Your task to perform on an android device: allow notifications from all sites in the chrome app Image 0: 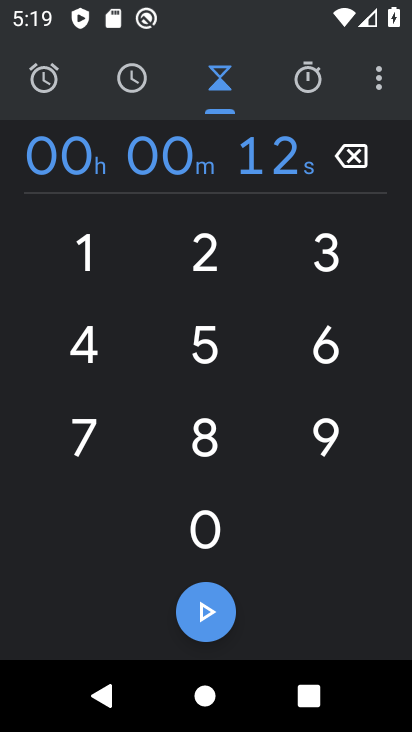
Step 0: press home button
Your task to perform on an android device: allow notifications from all sites in the chrome app Image 1: 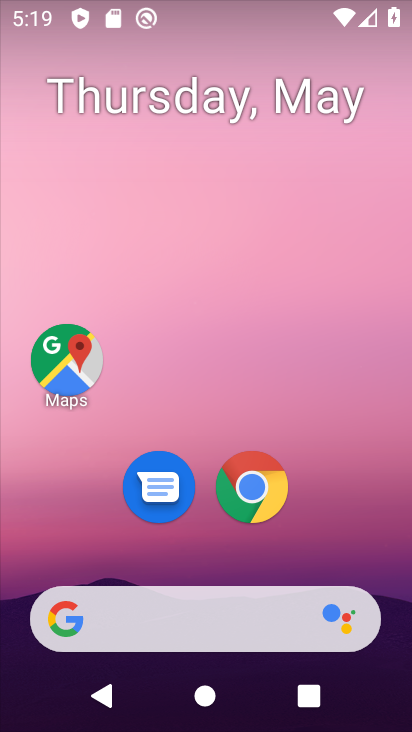
Step 1: click (269, 481)
Your task to perform on an android device: allow notifications from all sites in the chrome app Image 2: 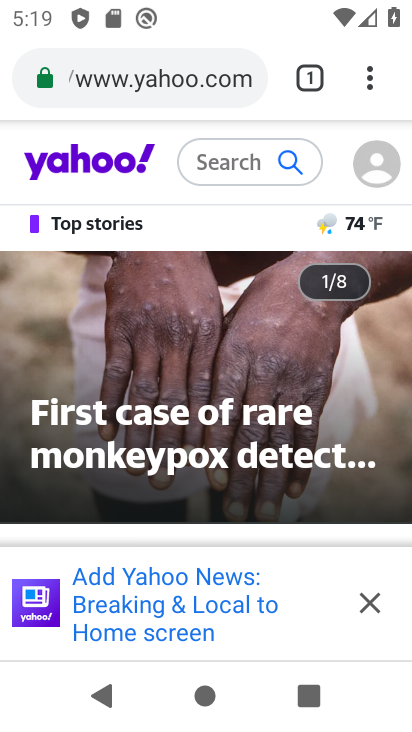
Step 2: click (370, 80)
Your task to perform on an android device: allow notifications from all sites in the chrome app Image 3: 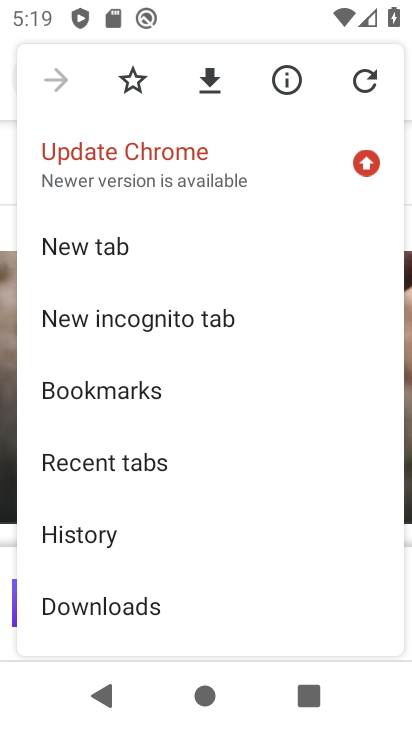
Step 3: drag from (215, 491) to (234, 165)
Your task to perform on an android device: allow notifications from all sites in the chrome app Image 4: 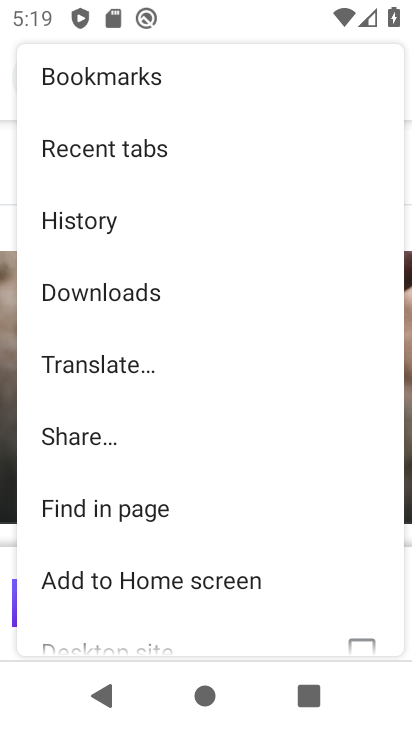
Step 4: drag from (228, 386) to (250, 131)
Your task to perform on an android device: allow notifications from all sites in the chrome app Image 5: 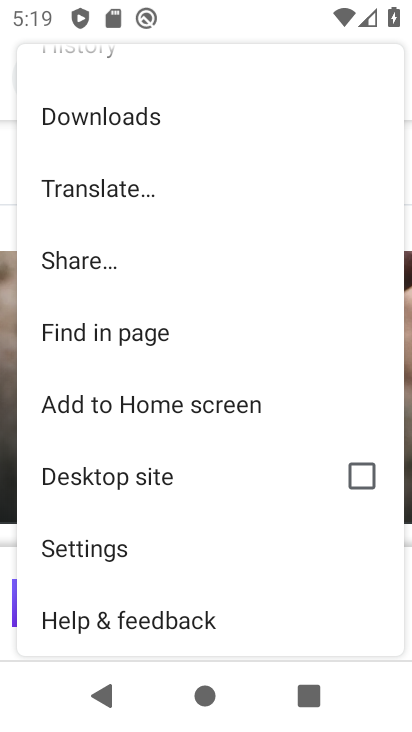
Step 5: click (155, 559)
Your task to perform on an android device: allow notifications from all sites in the chrome app Image 6: 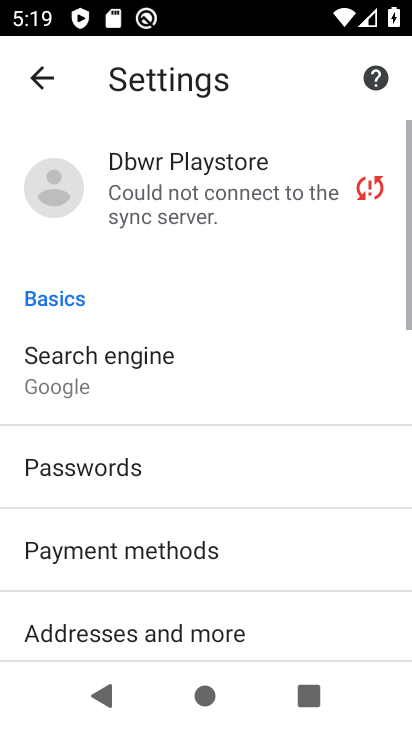
Step 6: drag from (232, 555) to (252, 192)
Your task to perform on an android device: allow notifications from all sites in the chrome app Image 7: 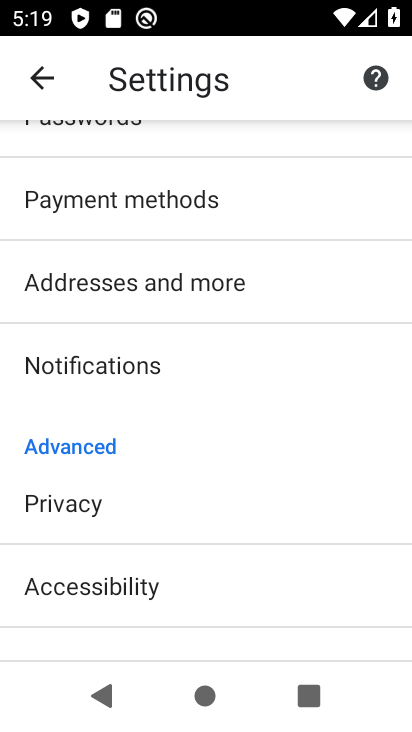
Step 7: click (169, 366)
Your task to perform on an android device: allow notifications from all sites in the chrome app Image 8: 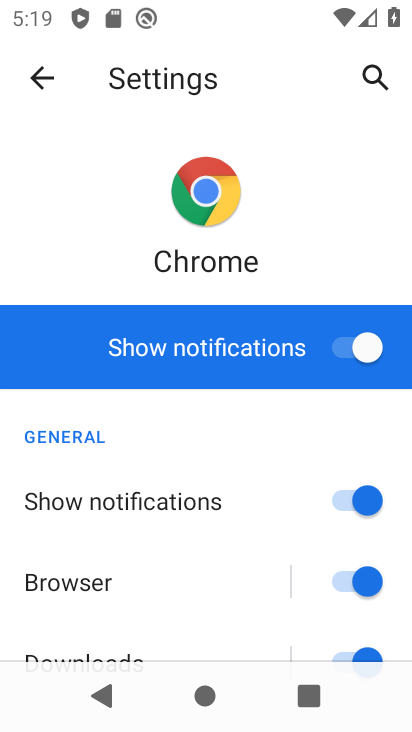
Step 8: task complete